Your task to perform on an android device: refresh tabs in the chrome app Image 0: 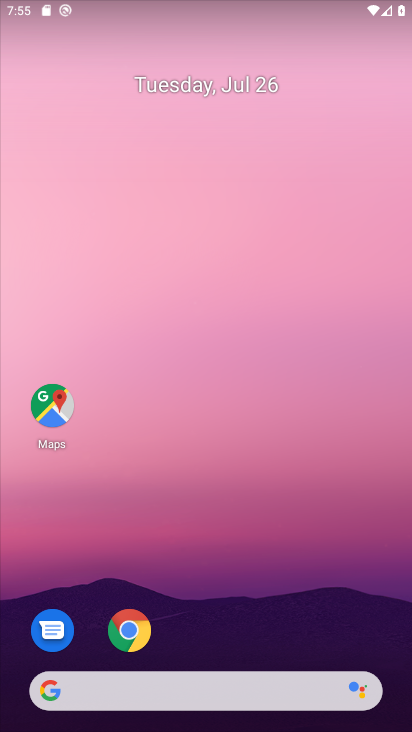
Step 0: click (122, 630)
Your task to perform on an android device: refresh tabs in the chrome app Image 1: 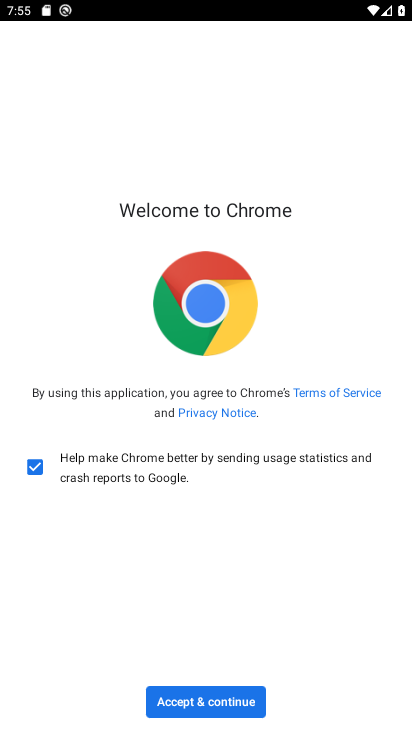
Step 1: click (205, 702)
Your task to perform on an android device: refresh tabs in the chrome app Image 2: 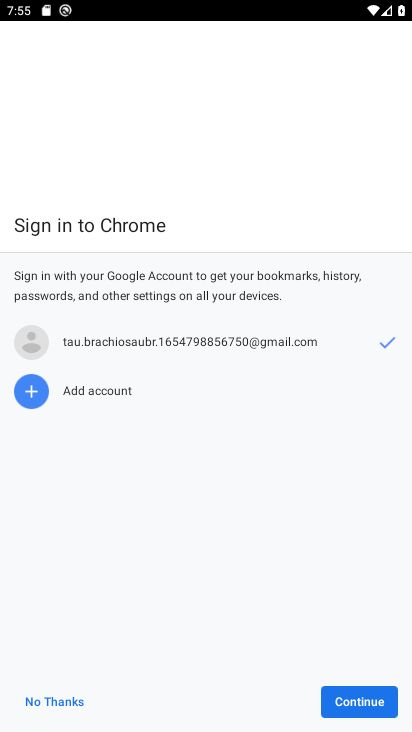
Step 2: click (373, 701)
Your task to perform on an android device: refresh tabs in the chrome app Image 3: 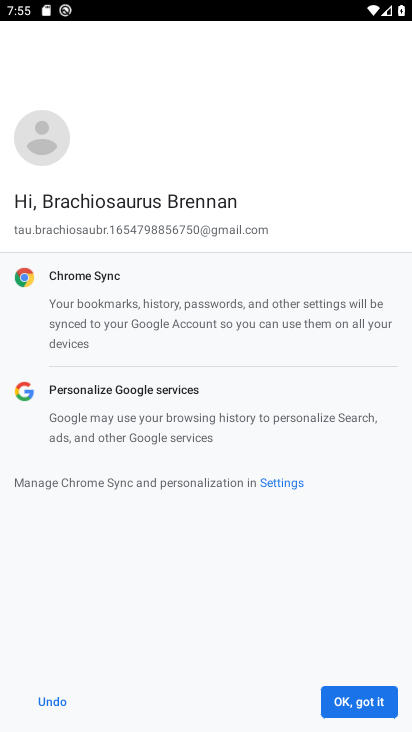
Step 3: click (373, 701)
Your task to perform on an android device: refresh tabs in the chrome app Image 4: 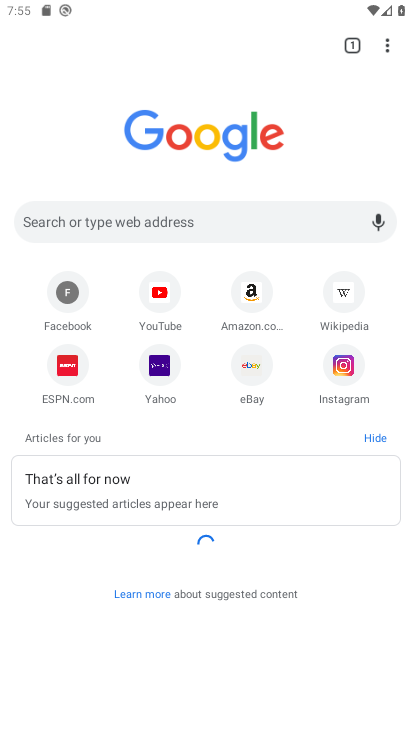
Step 4: click (383, 39)
Your task to perform on an android device: refresh tabs in the chrome app Image 5: 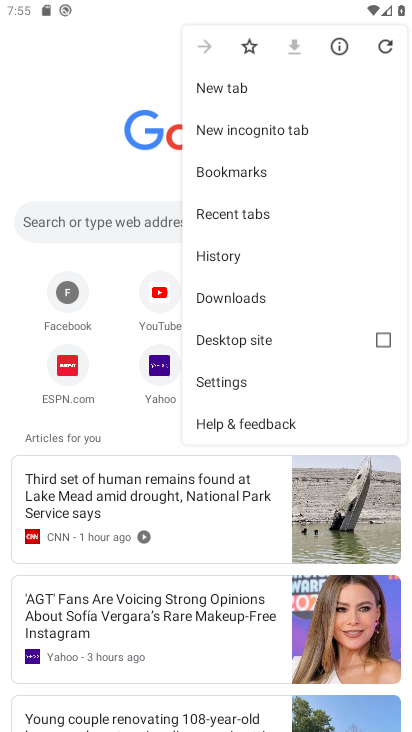
Step 5: click (388, 42)
Your task to perform on an android device: refresh tabs in the chrome app Image 6: 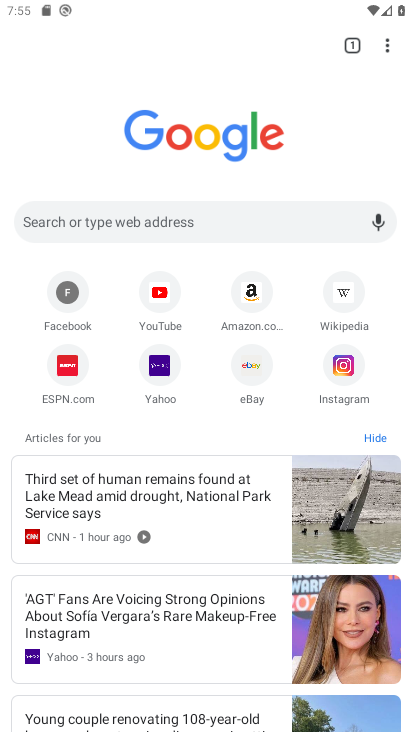
Step 6: task complete